Your task to perform on an android device: visit the assistant section in the google photos Image 0: 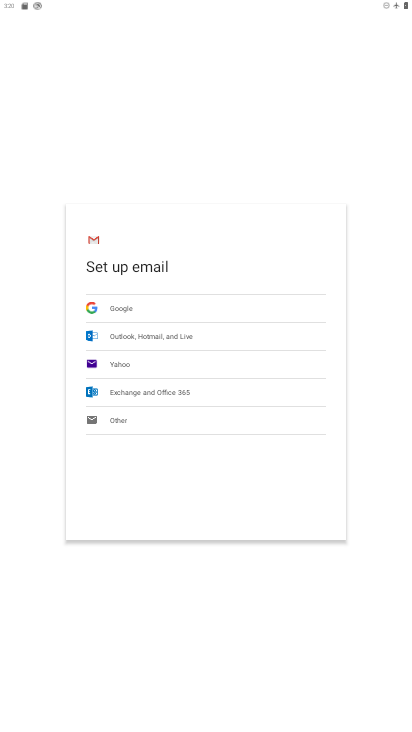
Step 0: press home button
Your task to perform on an android device: visit the assistant section in the google photos Image 1: 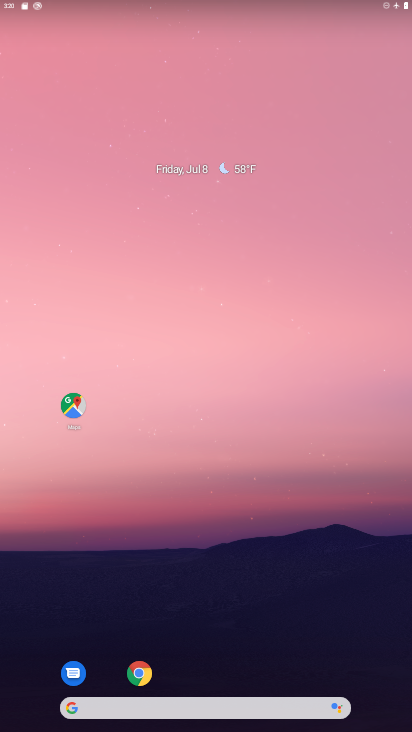
Step 1: drag from (188, 697) to (269, 317)
Your task to perform on an android device: visit the assistant section in the google photos Image 2: 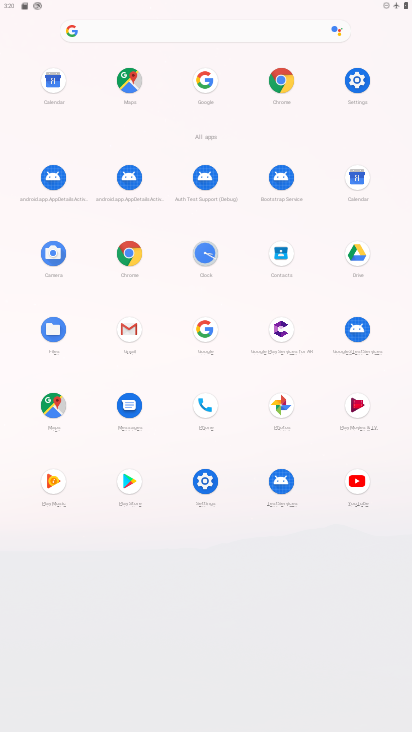
Step 2: click (282, 405)
Your task to perform on an android device: visit the assistant section in the google photos Image 3: 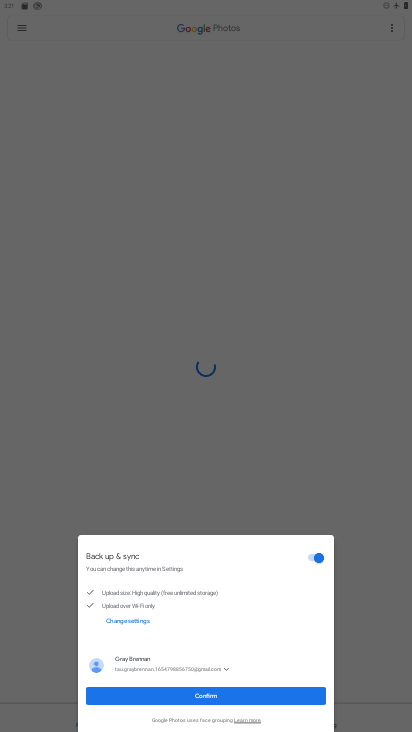
Step 3: click (243, 722)
Your task to perform on an android device: visit the assistant section in the google photos Image 4: 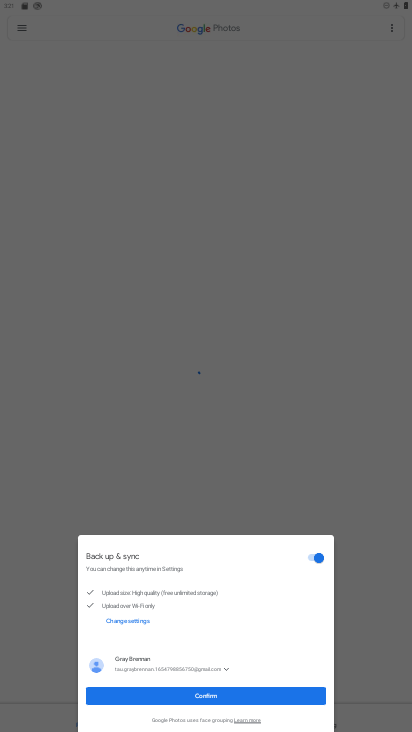
Step 4: click (227, 700)
Your task to perform on an android device: visit the assistant section in the google photos Image 5: 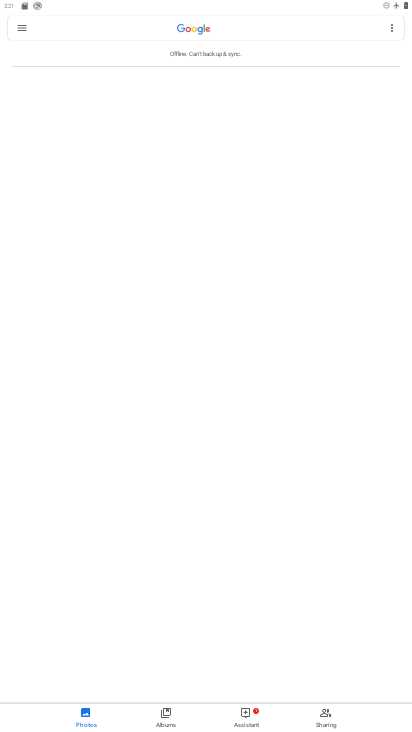
Step 5: click (253, 714)
Your task to perform on an android device: visit the assistant section in the google photos Image 6: 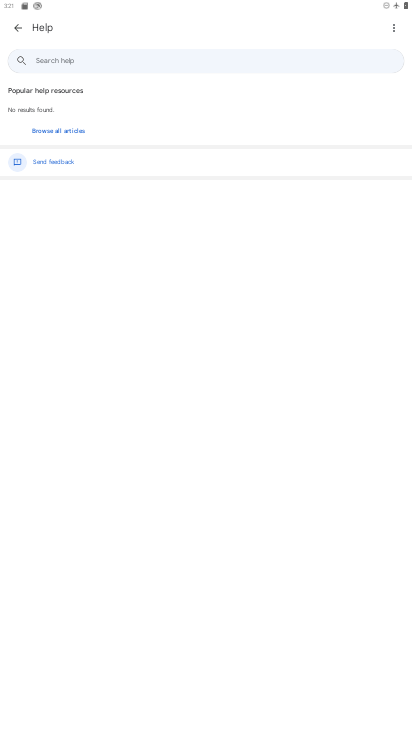
Step 6: click (11, 28)
Your task to perform on an android device: visit the assistant section in the google photos Image 7: 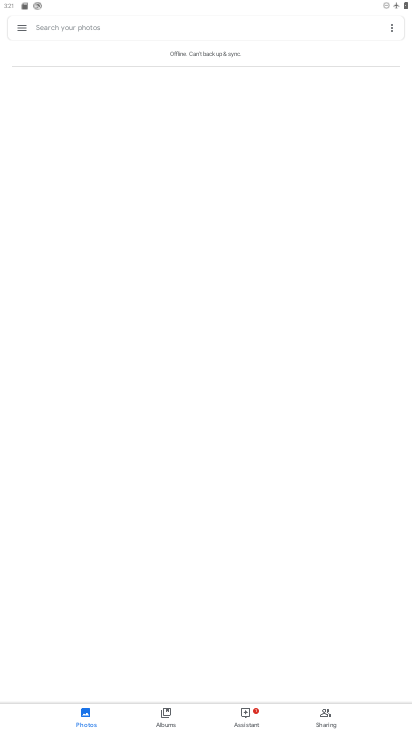
Step 7: click (252, 721)
Your task to perform on an android device: visit the assistant section in the google photos Image 8: 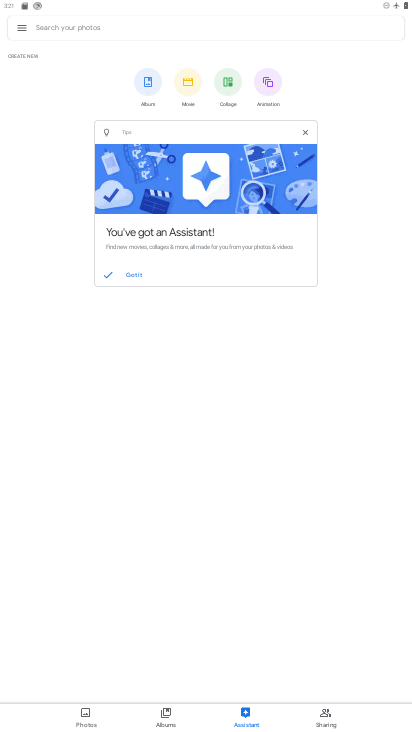
Step 8: task complete